Your task to perform on an android device: change notifications settings Image 0: 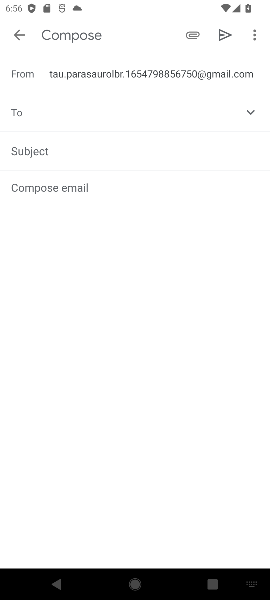
Step 0: press home button
Your task to perform on an android device: change notifications settings Image 1: 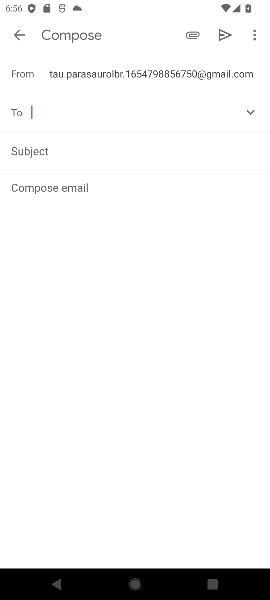
Step 1: press home button
Your task to perform on an android device: change notifications settings Image 2: 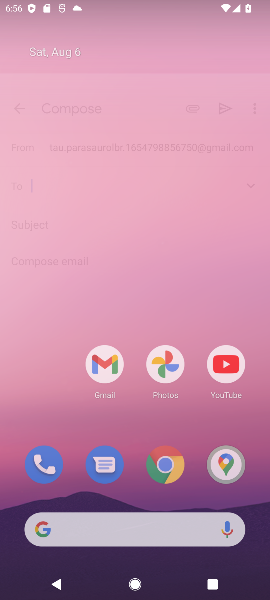
Step 2: press home button
Your task to perform on an android device: change notifications settings Image 3: 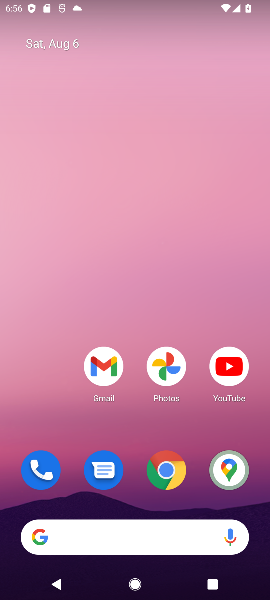
Step 3: drag from (163, 463) to (160, 14)
Your task to perform on an android device: change notifications settings Image 4: 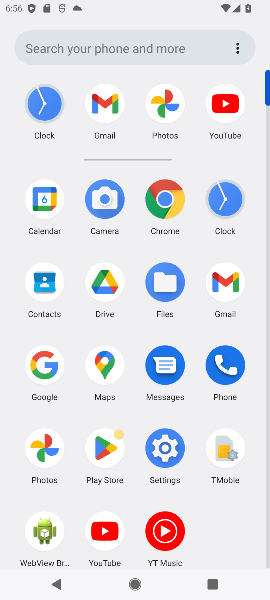
Step 4: click (172, 445)
Your task to perform on an android device: change notifications settings Image 5: 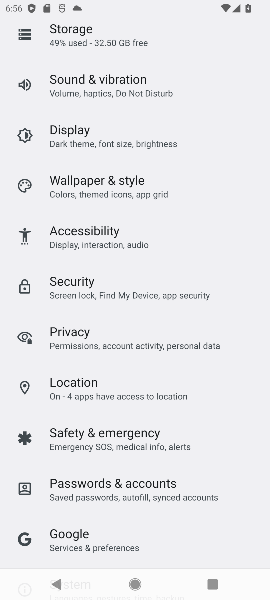
Step 5: drag from (135, 459) to (191, 585)
Your task to perform on an android device: change notifications settings Image 6: 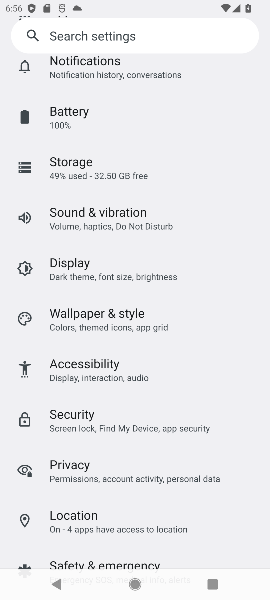
Step 6: click (105, 67)
Your task to perform on an android device: change notifications settings Image 7: 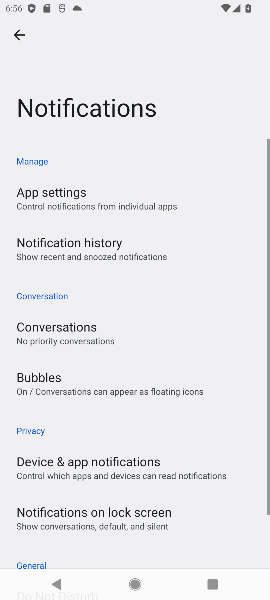
Step 7: task complete